Your task to perform on an android device: change notification settings in the gmail app Image 0: 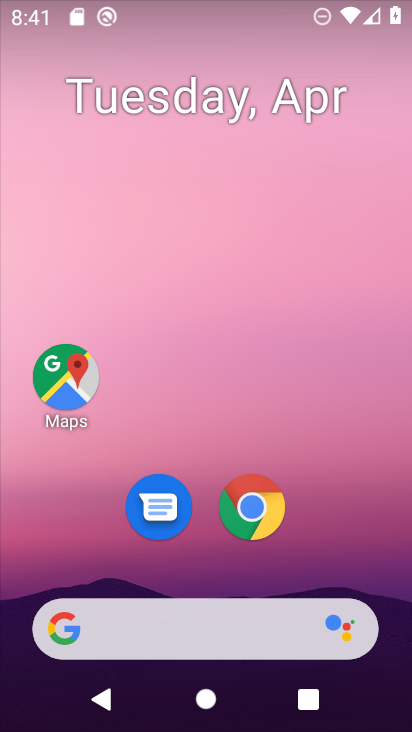
Step 0: drag from (211, 496) to (211, 205)
Your task to perform on an android device: change notification settings in the gmail app Image 1: 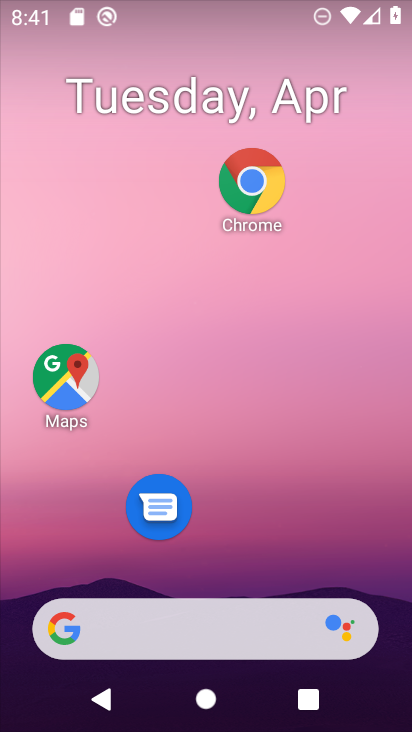
Step 1: drag from (217, 585) to (172, 75)
Your task to perform on an android device: change notification settings in the gmail app Image 2: 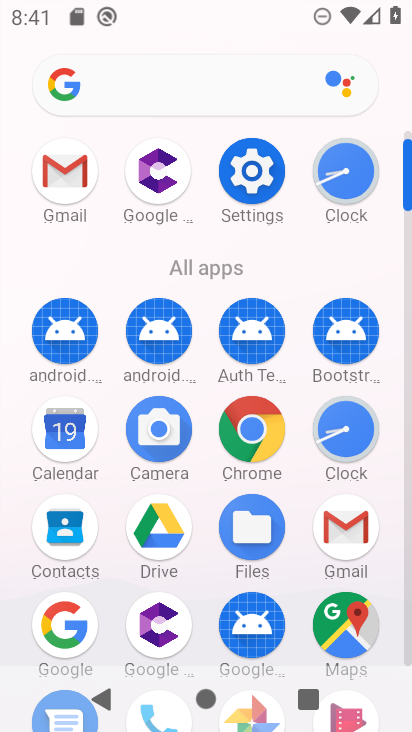
Step 2: click (337, 521)
Your task to perform on an android device: change notification settings in the gmail app Image 3: 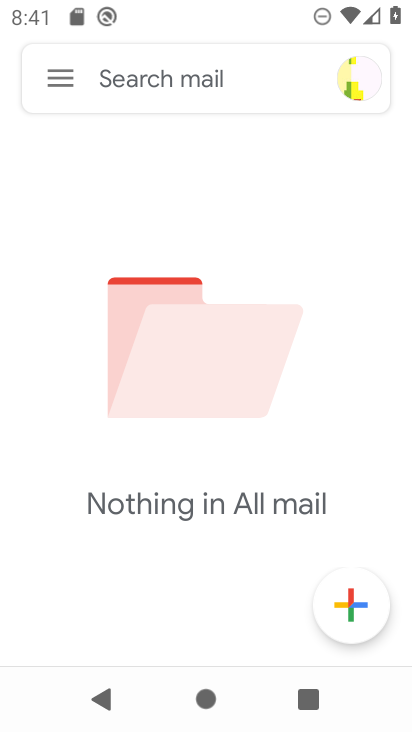
Step 3: click (57, 79)
Your task to perform on an android device: change notification settings in the gmail app Image 4: 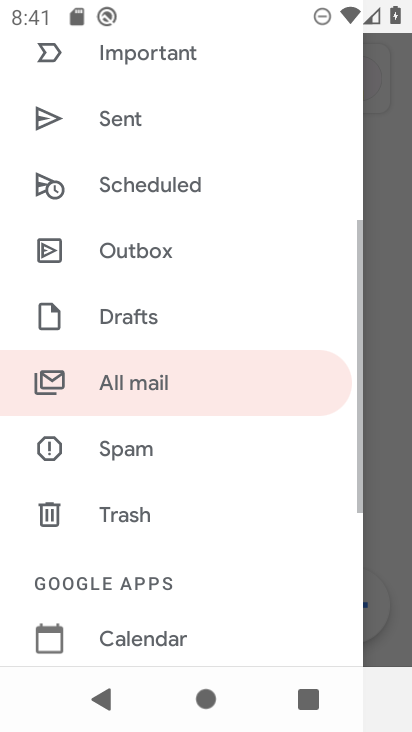
Step 4: drag from (195, 591) to (235, 213)
Your task to perform on an android device: change notification settings in the gmail app Image 5: 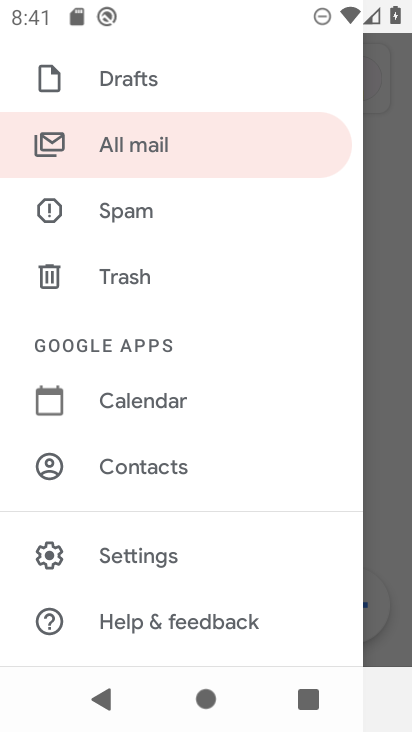
Step 5: click (152, 549)
Your task to perform on an android device: change notification settings in the gmail app Image 6: 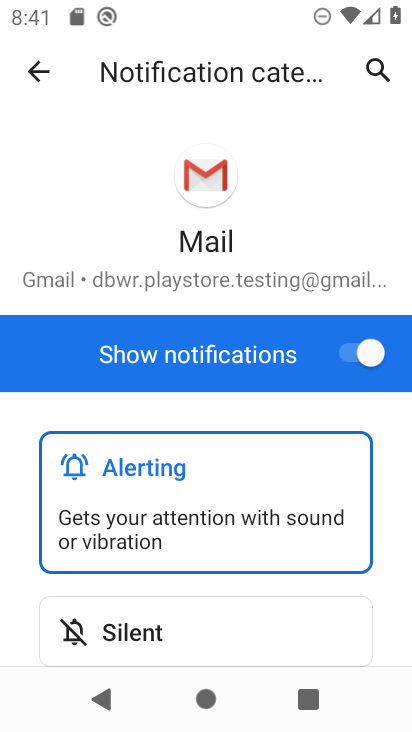
Step 6: drag from (241, 607) to (263, 190)
Your task to perform on an android device: change notification settings in the gmail app Image 7: 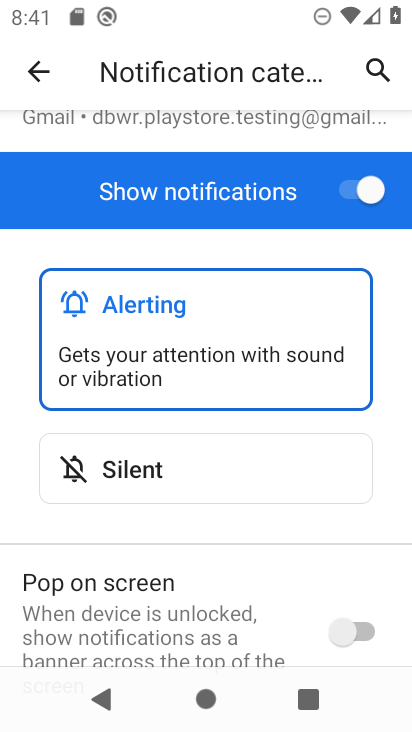
Step 7: drag from (293, 236) to (331, 563)
Your task to perform on an android device: change notification settings in the gmail app Image 8: 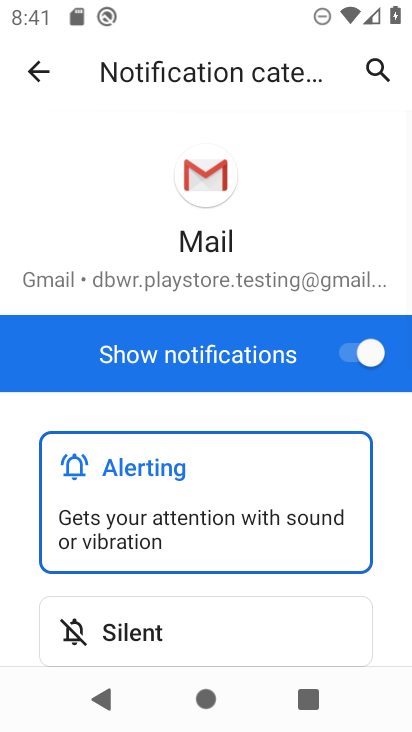
Step 8: click (348, 352)
Your task to perform on an android device: change notification settings in the gmail app Image 9: 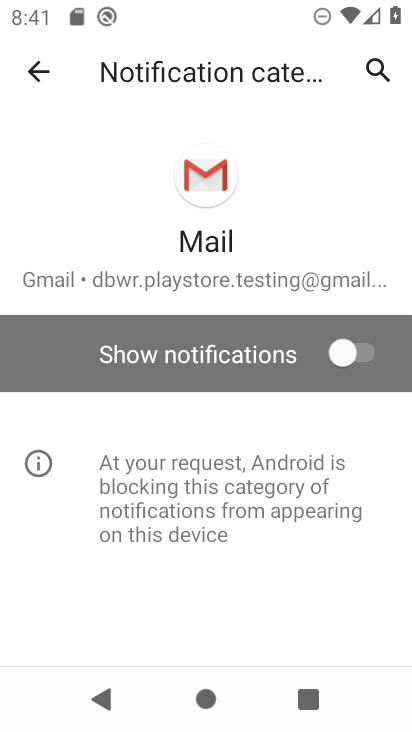
Step 9: task complete